Your task to perform on an android device: snooze an email in the gmail app Image 0: 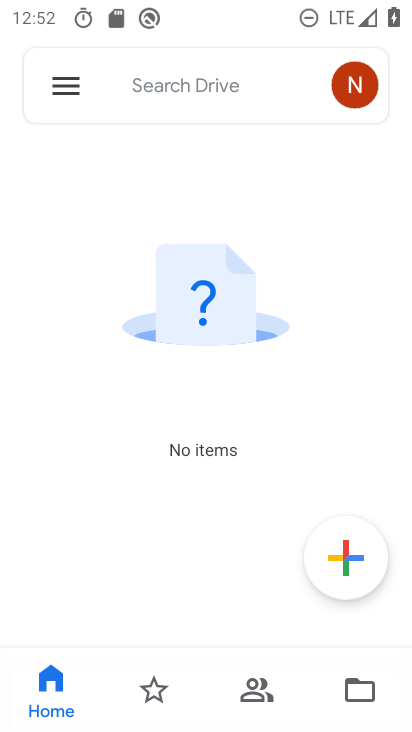
Step 0: press home button
Your task to perform on an android device: snooze an email in the gmail app Image 1: 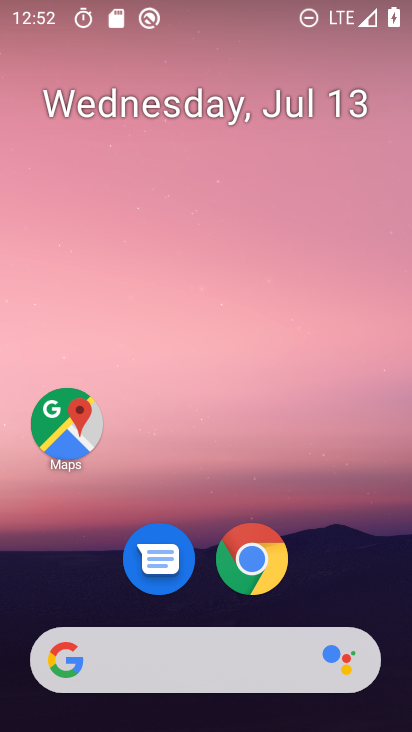
Step 1: drag from (250, 676) to (288, 261)
Your task to perform on an android device: snooze an email in the gmail app Image 2: 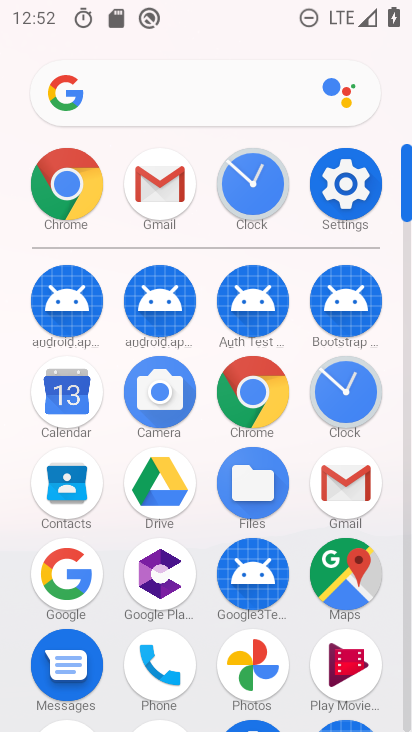
Step 2: click (347, 505)
Your task to perform on an android device: snooze an email in the gmail app Image 3: 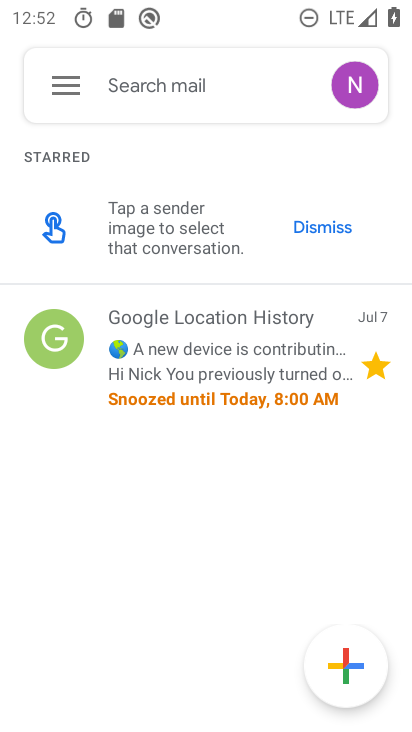
Step 3: click (162, 360)
Your task to perform on an android device: snooze an email in the gmail app Image 4: 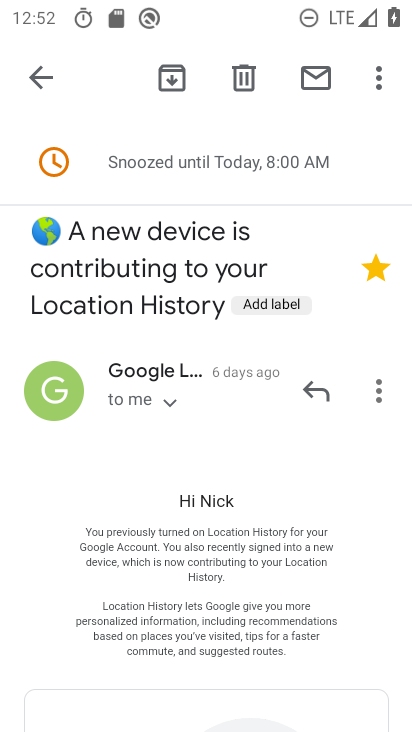
Step 4: click (386, 78)
Your task to perform on an android device: snooze an email in the gmail app Image 5: 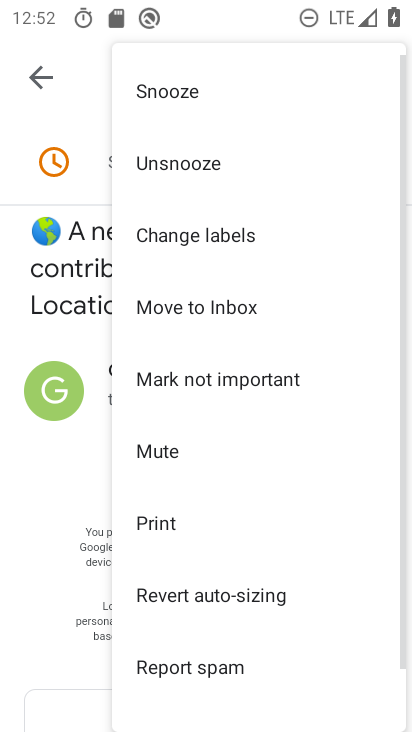
Step 5: click (383, 92)
Your task to perform on an android device: snooze an email in the gmail app Image 6: 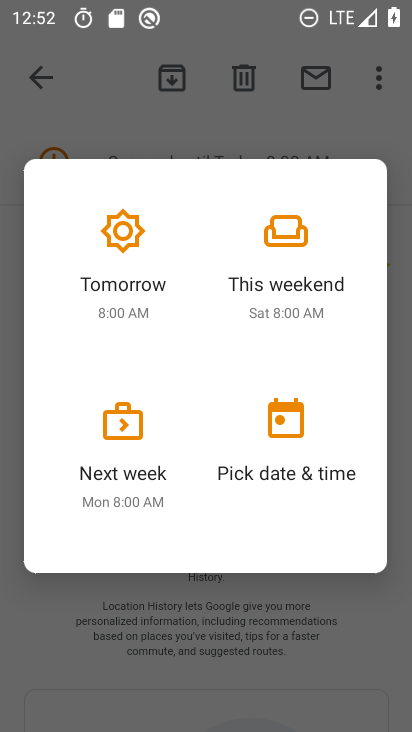
Step 6: click (261, 275)
Your task to perform on an android device: snooze an email in the gmail app Image 7: 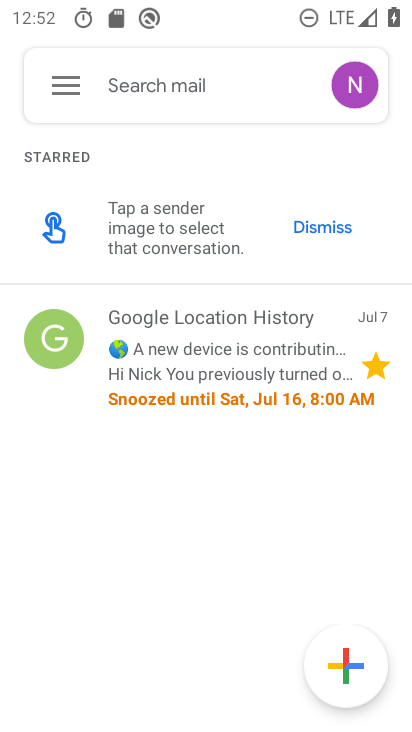
Step 7: click (227, 363)
Your task to perform on an android device: snooze an email in the gmail app Image 8: 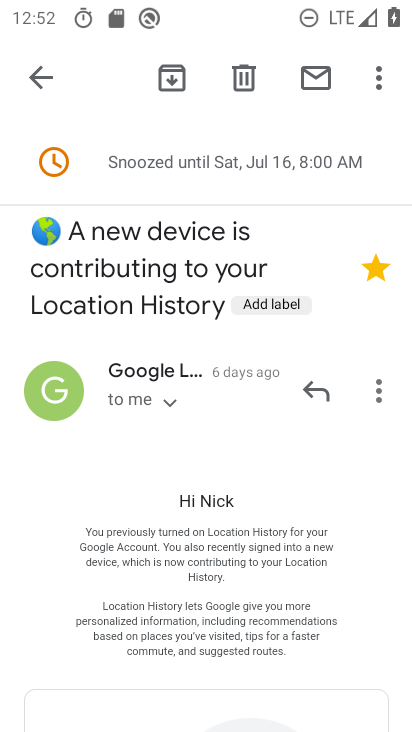
Step 8: click (388, 83)
Your task to perform on an android device: snooze an email in the gmail app Image 9: 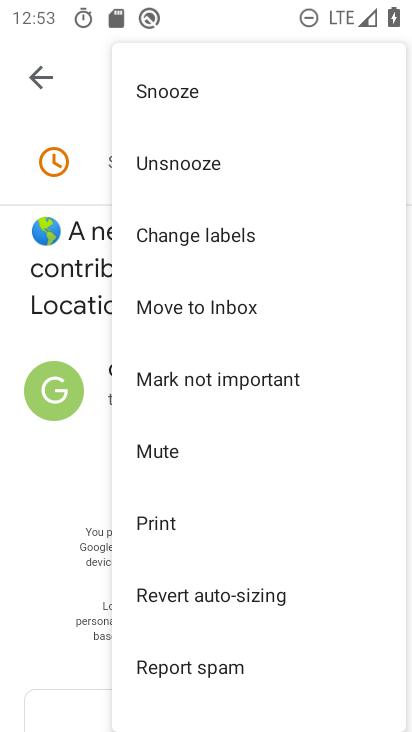
Step 9: click (195, 100)
Your task to perform on an android device: snooze an email in the gmail app Image 10: 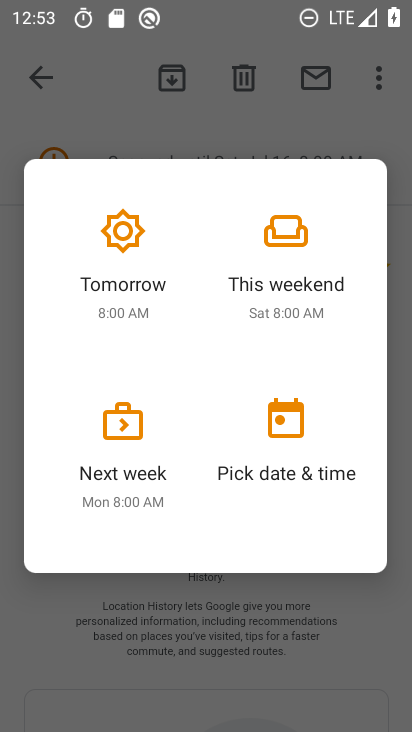
Step 10: click (279, 330)
Your task to perform on an android device: snooze an email in the gmail app Image 11: 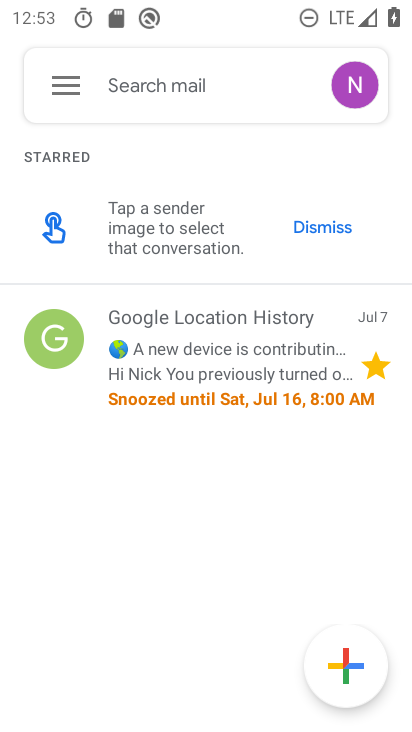
Step 11: task complete